Your task to perform on an android device: add a contact Image 0: 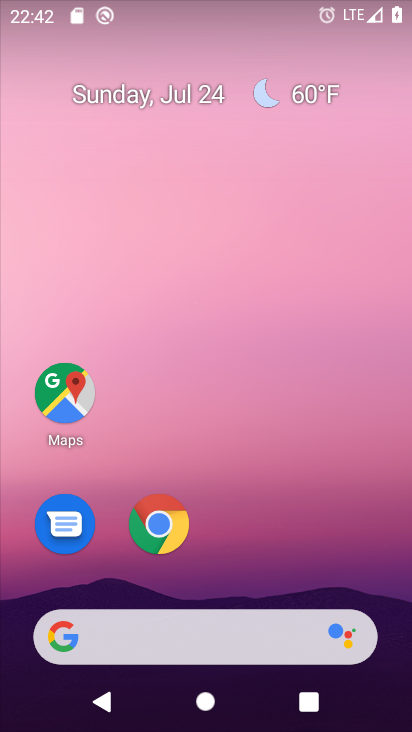
Step 0: drag from (279, 539) to (271, 64)
Your task to perform on an android device: add a contact Image 1: 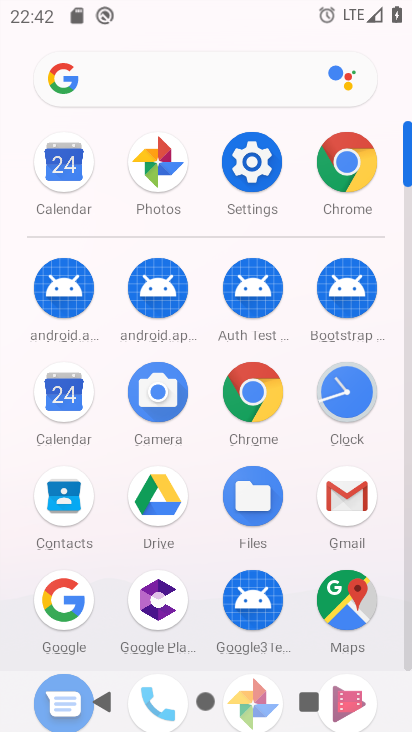
Step 1: click (61, 488)
Your task to perform on an android device: add a contact Image 2: 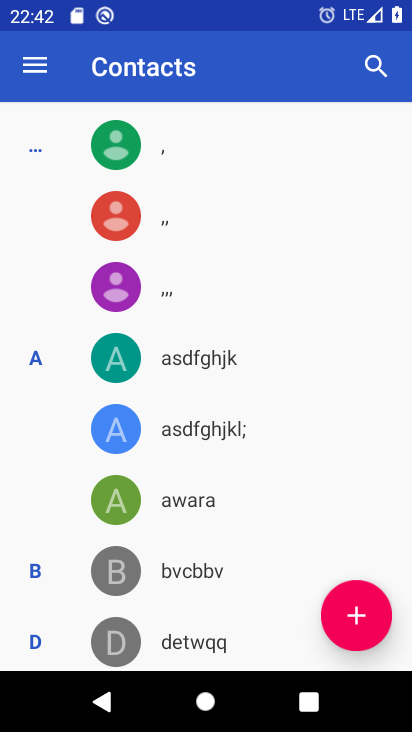
Step 2: click (358, 611)
Your task to perform on an android device: add a contact Image 3: 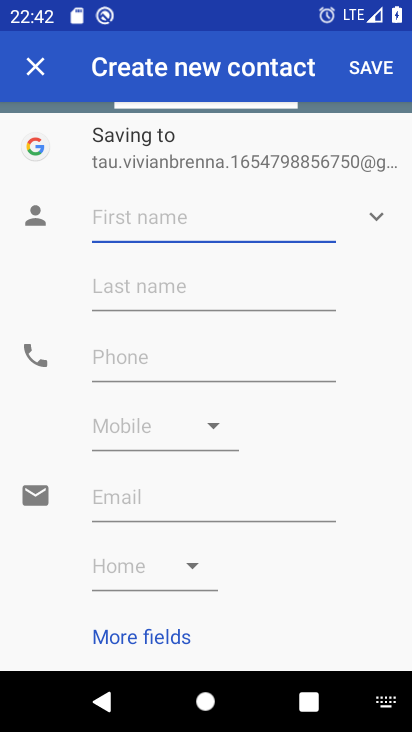
Step 3: type "Om"
Your task to perform on an android device: add a contact Image 4: 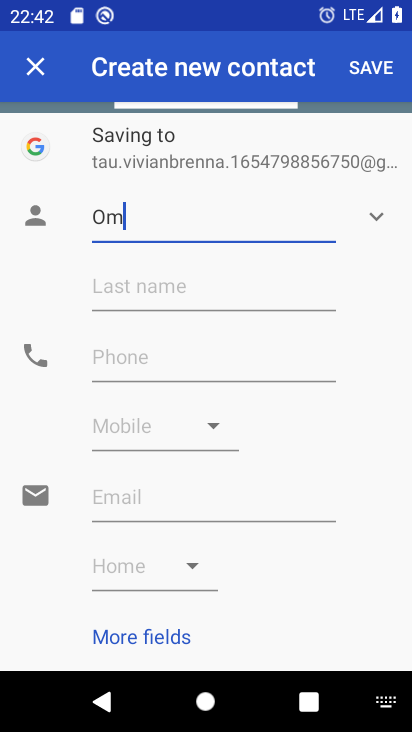
Step 4: click (156, 358)
Your task to perform on an android device: add a contact Image 5: 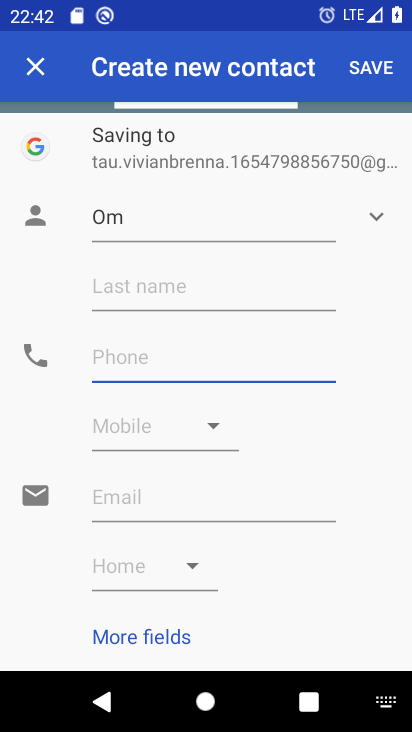
Step 5: type "+9199900000001"
Your task to perform on an android device: add a contact Image 6: 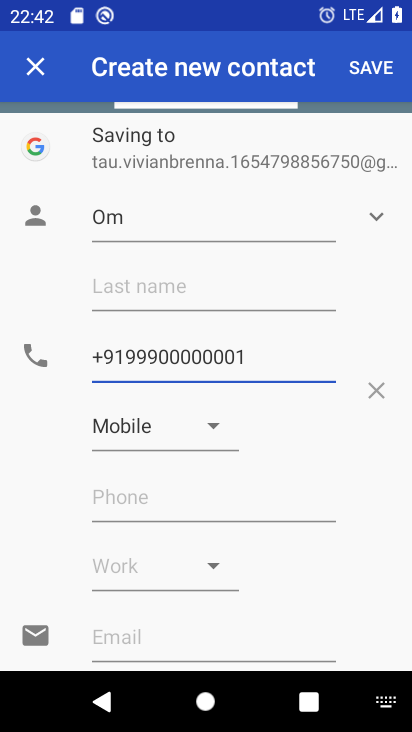
Step 6: click (364, 63)
Your task to perform on an android device: add a contact Image 7: 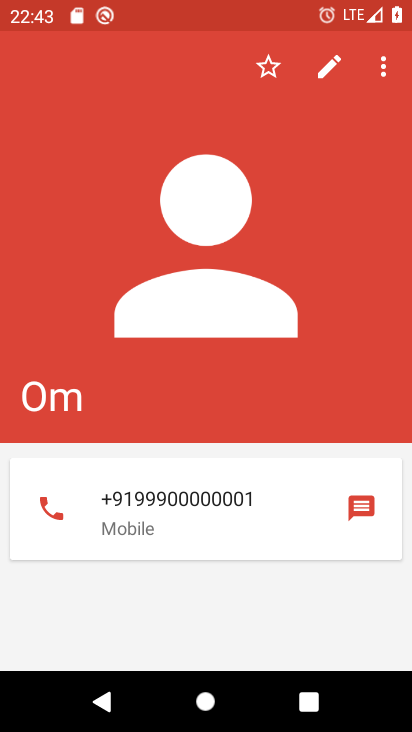
Step 7: task complete